Your task to perform on an android device: turn on sleep mode Image 0: 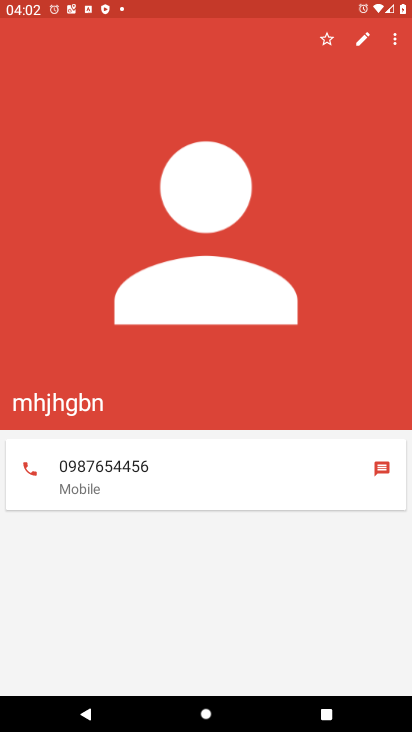
Step 0: press home button
Your task to perform on an android device: turn on sleep mode Image 1: 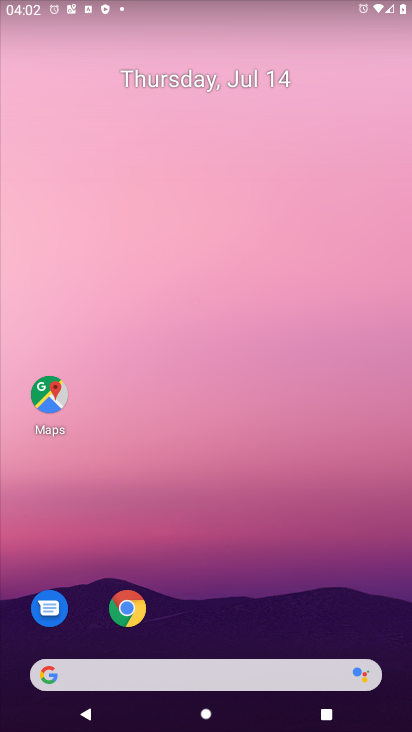
Step 1: drag from (398, 646) to (354, 142)
Your task to perform on an android device: turn on sleep mode Image 2: 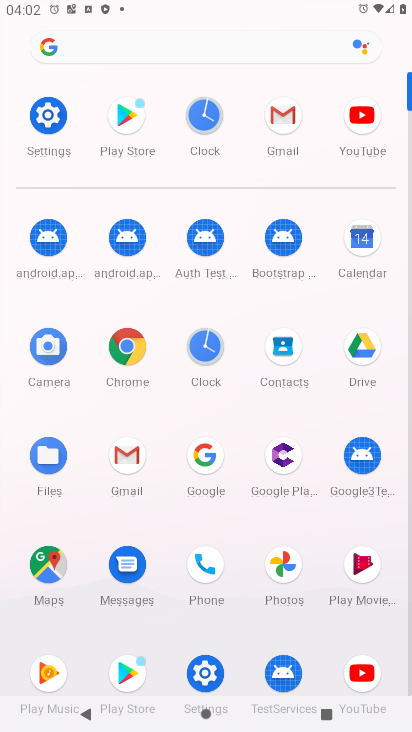
Step 2: click (208, 673)
Your task to perform on an android device: turn on sleep mode Image 3: 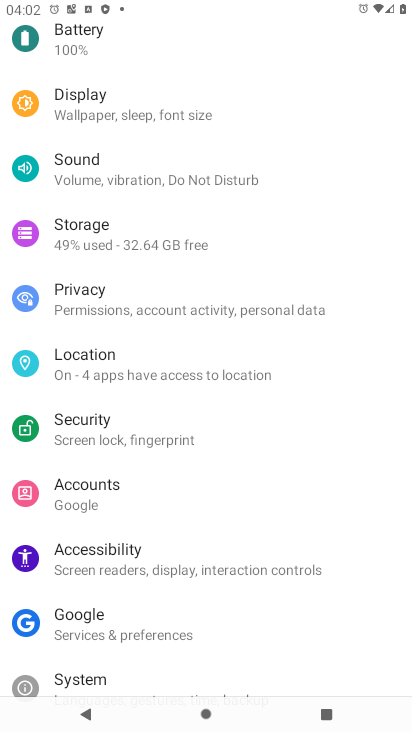
Step 3: click (84, 107)
Your task to perform on an android device: turn on sleep mode Image 4: 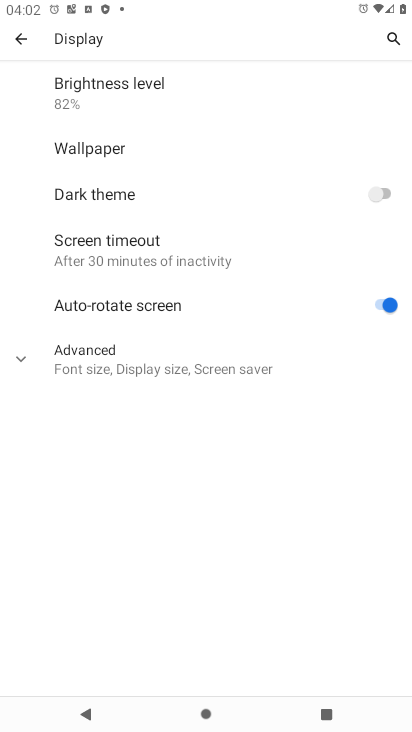
Step 4: click (20, 359)
Your task to perform on an android device: turn on sleep mode Image 5: 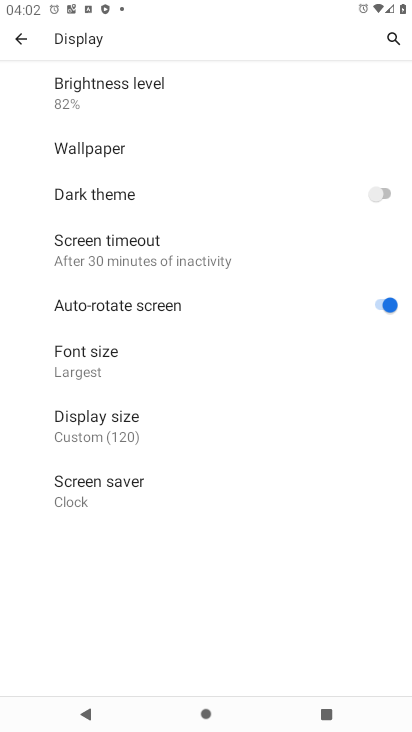
Step 5: task complete